Your task to perform on an android device: change the upload size in google photos Image 0: 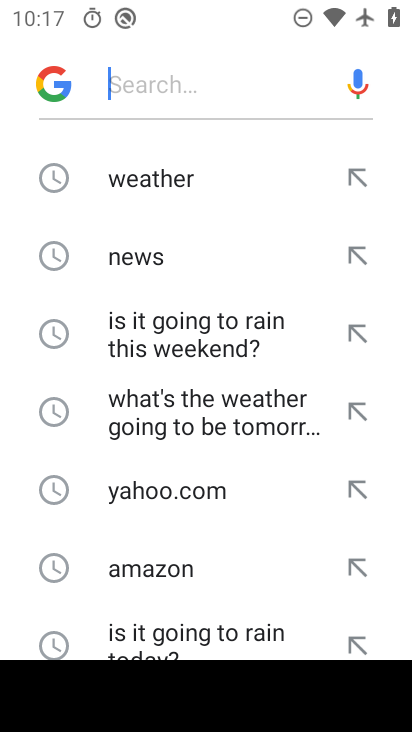
Step 0: press home button
Your task to perform on an android device: change the upload size in google photos Image 1: 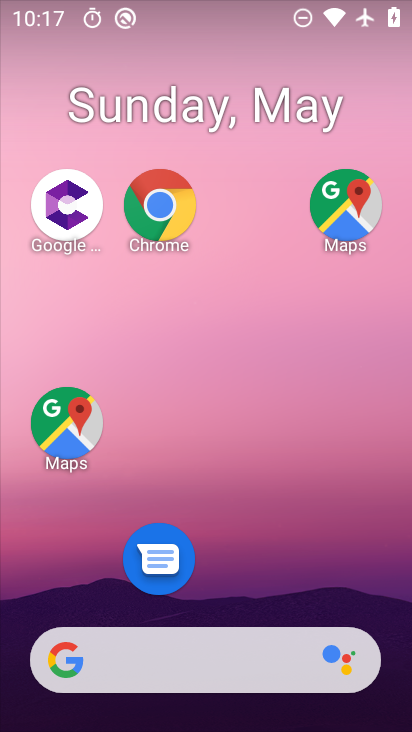
Step 1: drag from (300, 603) to (243, 68)
Your task to perform on an android device: change the upload size in google photos Image 2: 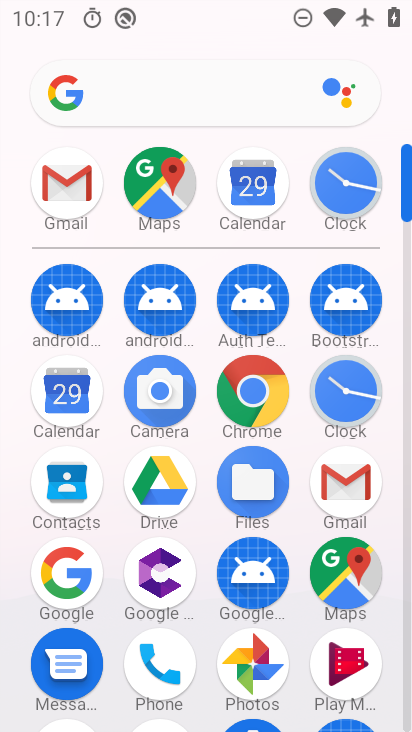
Step 2: click (261, 657)
Your task to perform on an android device: change the upload size in google photos Image 3: 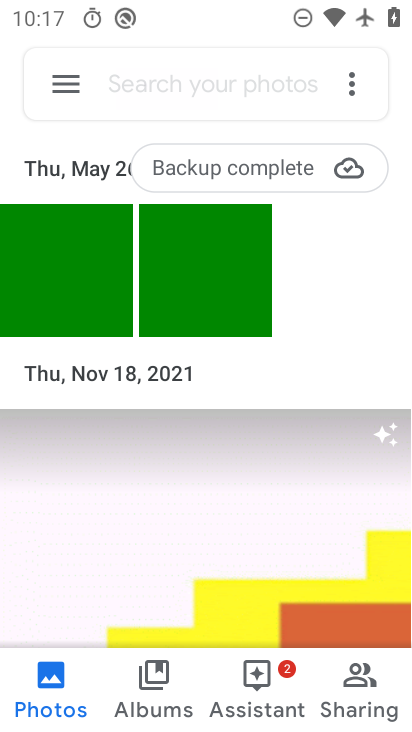
Step 3: click (78, 89)
Your task to perform on an android device: change the upload size in google photos Image 4: 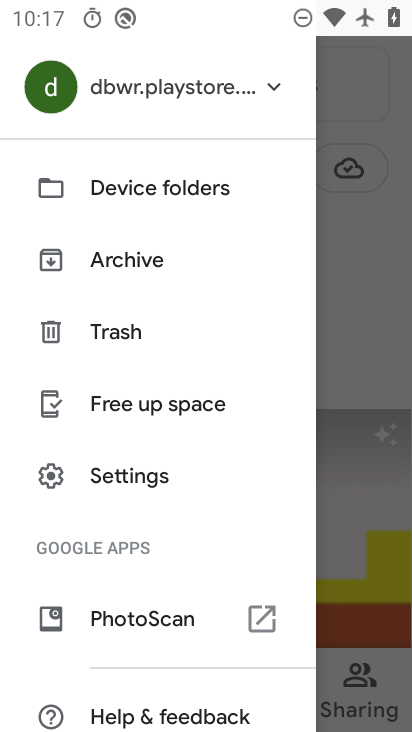
Step 4: click (120, 484)
Your task to perform on an android device: change the upload size in google photos Image 5: 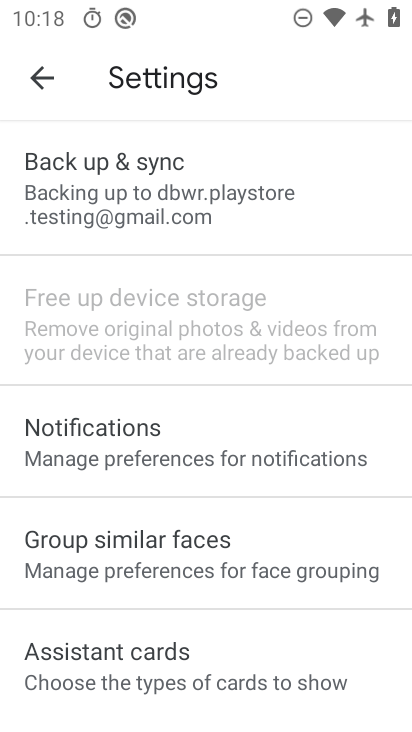
Step 5: click (100, 186)
Your task to perform on an android device: change the upload size in google photos Image 6: 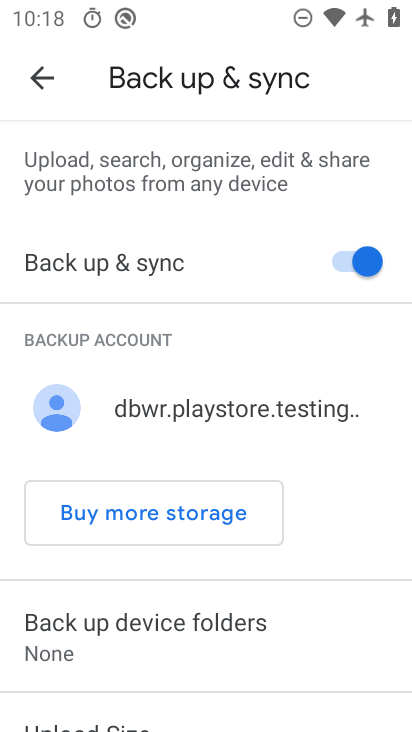
Step 6: drag from (327, 634) to (335, 202)
Your task to perform on an android device: change the upload size in google photos Image 7: 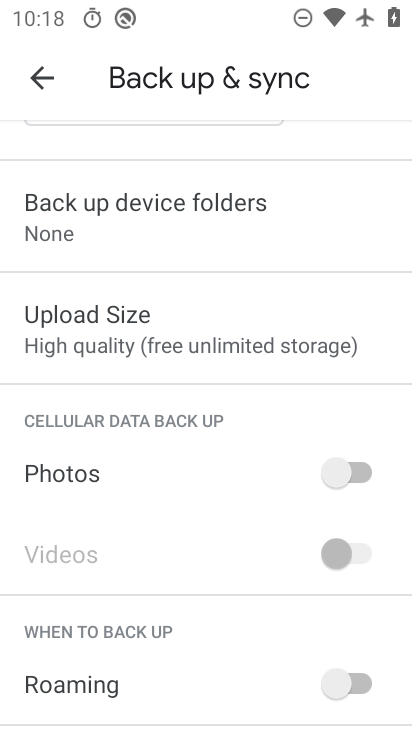
Step 7: click (79, 327)
Your task to perform on an android device: change the upload size in google photos Image 8: 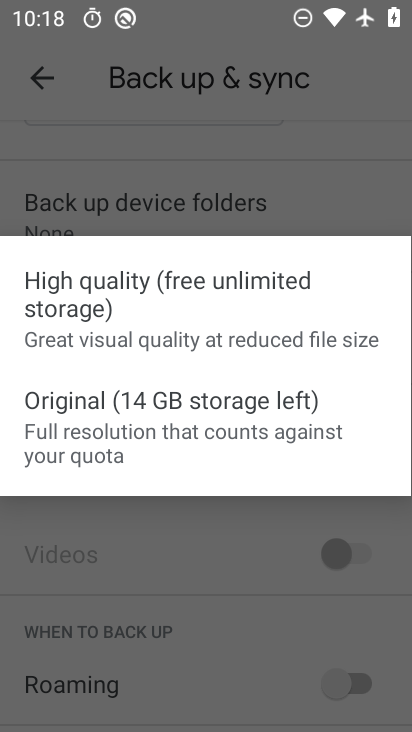
Step 8: click (97, 440)
Your task to perform on an android device: change the upload size in google photos Image 9: 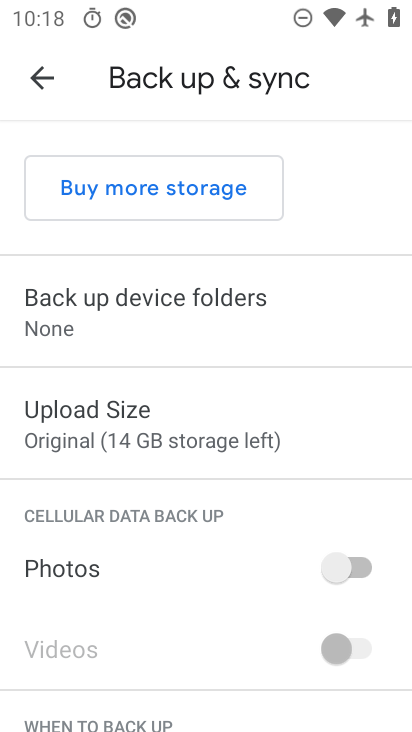
Step 9: task complete